Your task to perform on an android device: manage bookmarks in the chrome app Image 0: 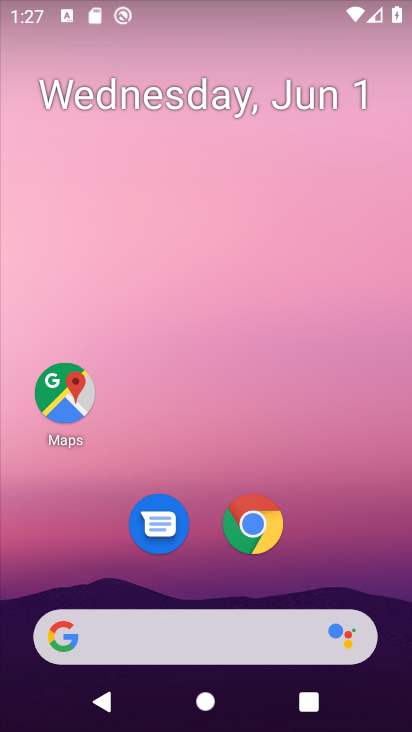
Step 0: click (266, 521)
Your task to perform on an android device: manage bookmarks in the chrome app Image 1: 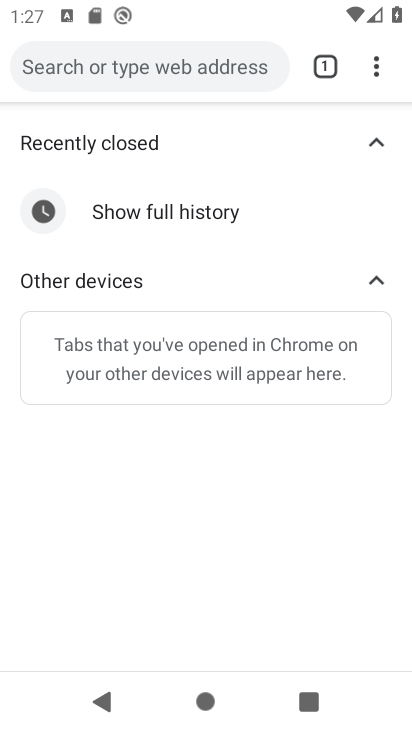
Step 1: click (376, 66)
Your task to perform on an android device: manage bookmarks in the chrome app Image 2: 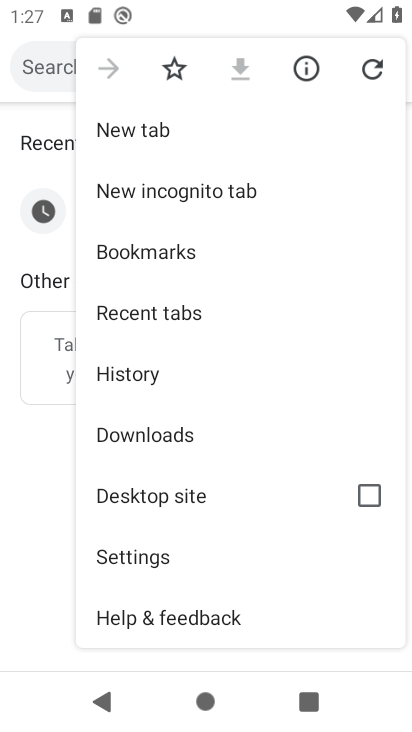
Step 2: click (211, 248)
Your task to perform on an android device: manage bookmarks in the chrome app Image 3: 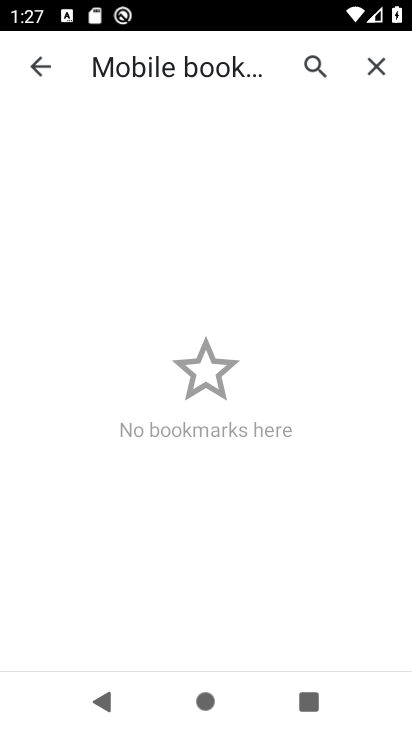
Step 3: task complete